Your task to perform on an android device: Empty the shopping cart on costco. Search for usb-c to usb-a on costco, select the first entry, add it to the cart, then select checkout. Image 0: 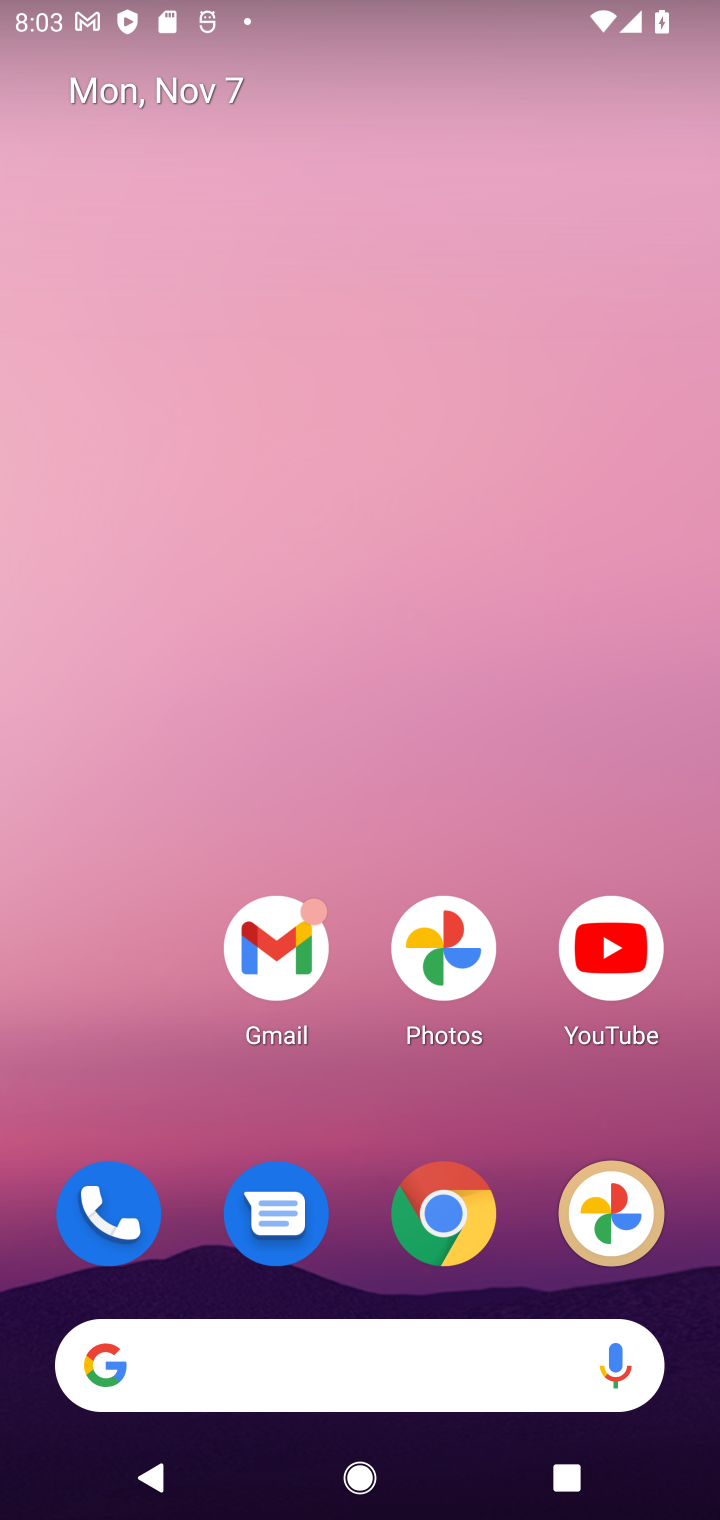
Step 0: click (439, 1218)
Your task to perform on an android device: Empty the shopping cart on costco. Search for usb-c to usb-a on costco, select the first entry, add it to the cart, then select checkout. Image 1: 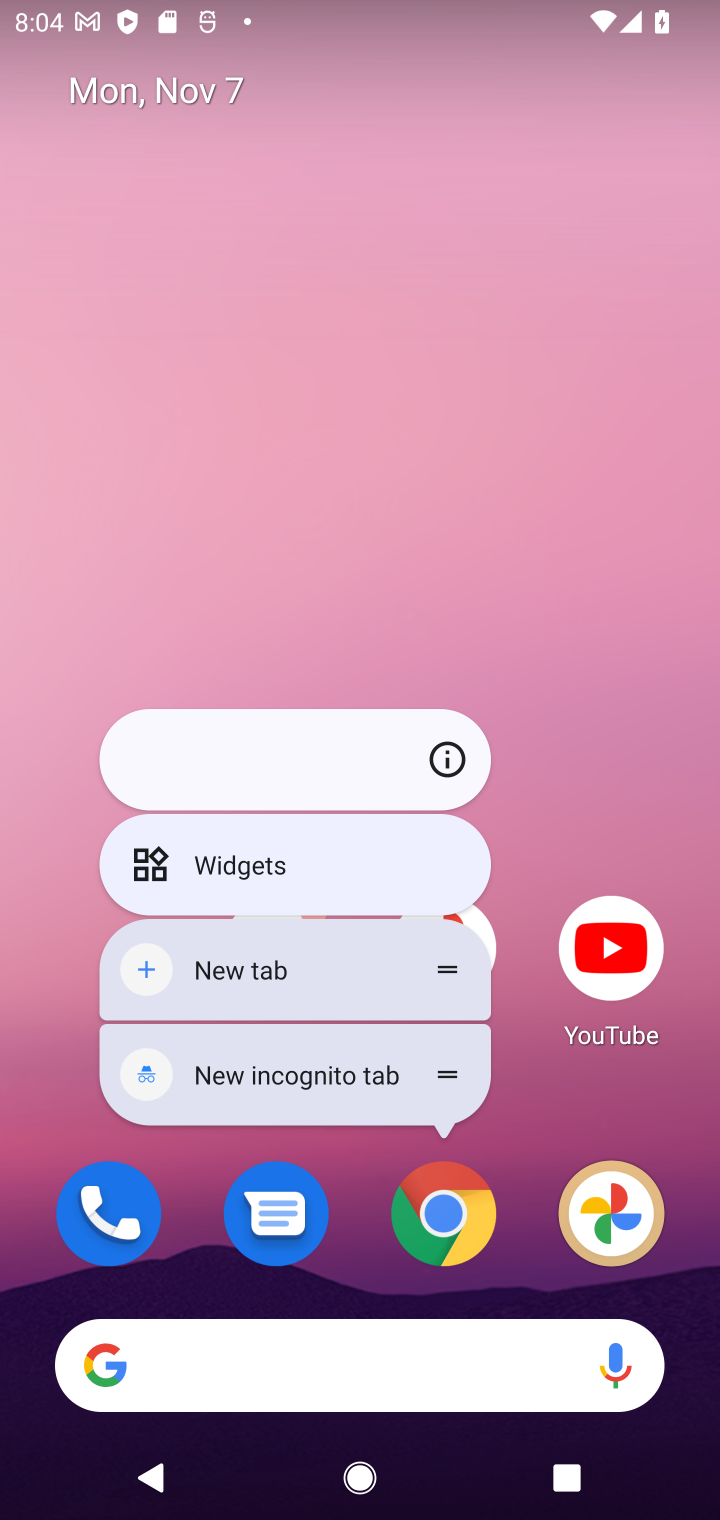
Step 1: click (460, 1218)
Your task to perform on an android device: Empty the shopping cart on costco. Search for usb-c to usb-a on costco, select the first entry, add it to the cart, then select checkout. Image 2: 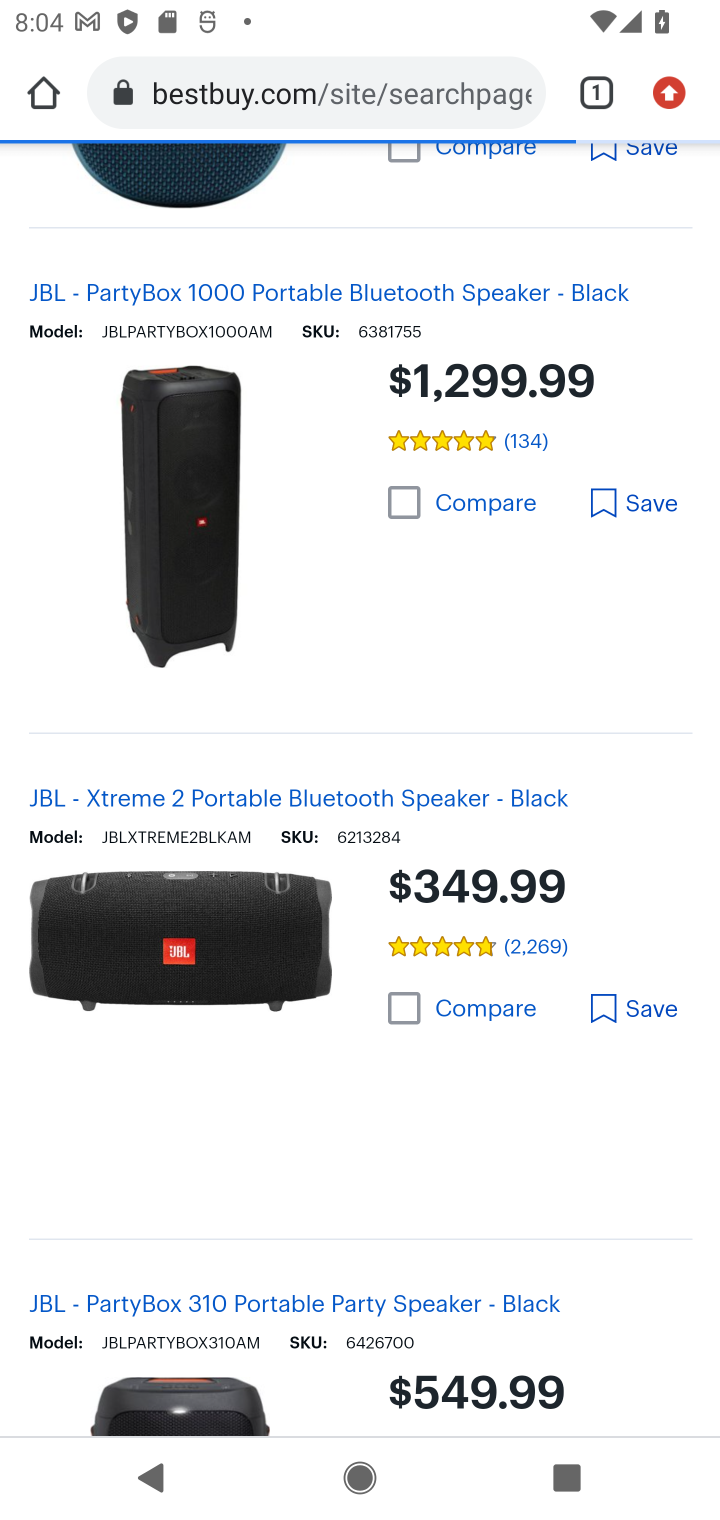
Step 2: click (279, 94)
Your task to perform on an android device: Empty the shopping cart on costco. Search for usb-c to usb-a on costco, select the first entry, add it to the cart, then select checkout. Image 3: 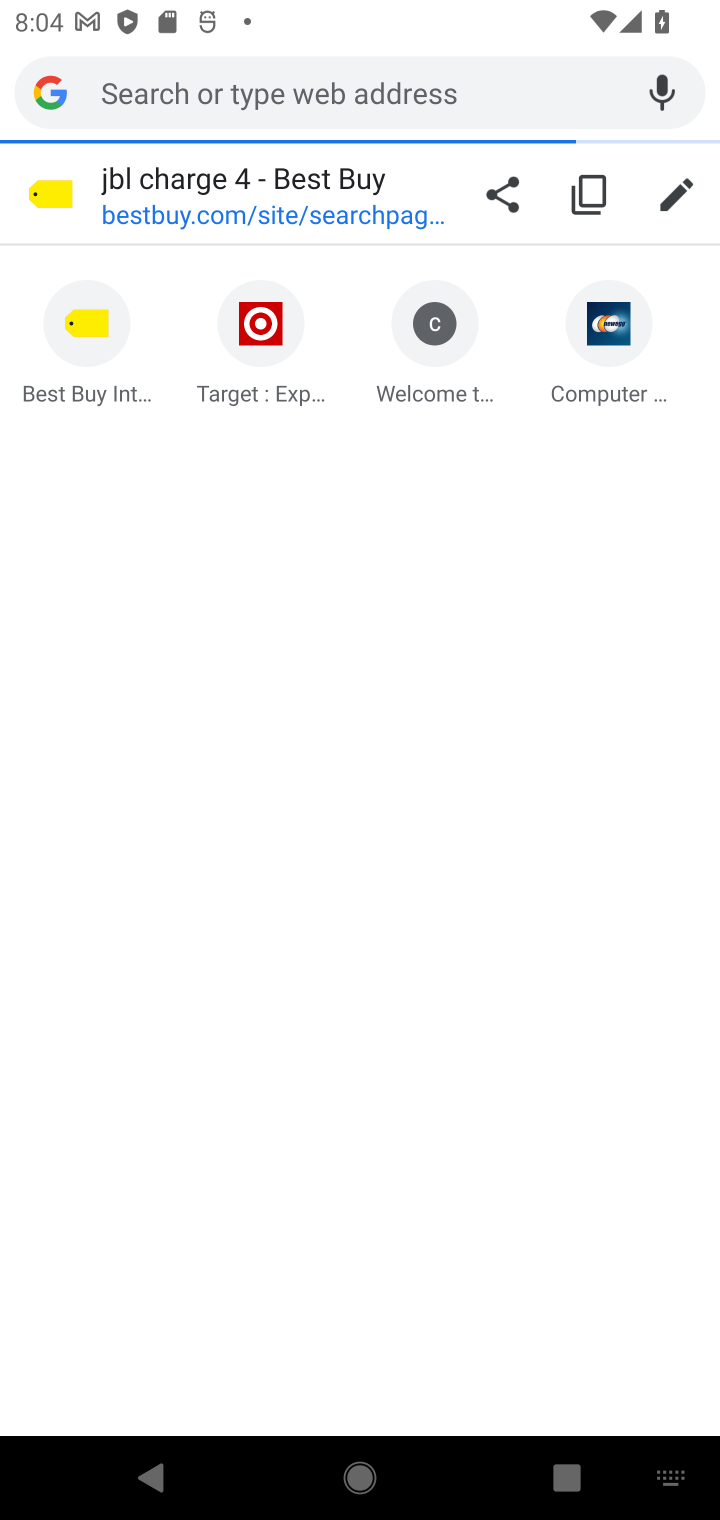
Step 3: type "costco.com"
Your task to perform on an android device: Empty the shopping cart on costco. Search for usb-c to usb-a on costco, select the first entry, add it to the cart, then select checkout. Image 4: 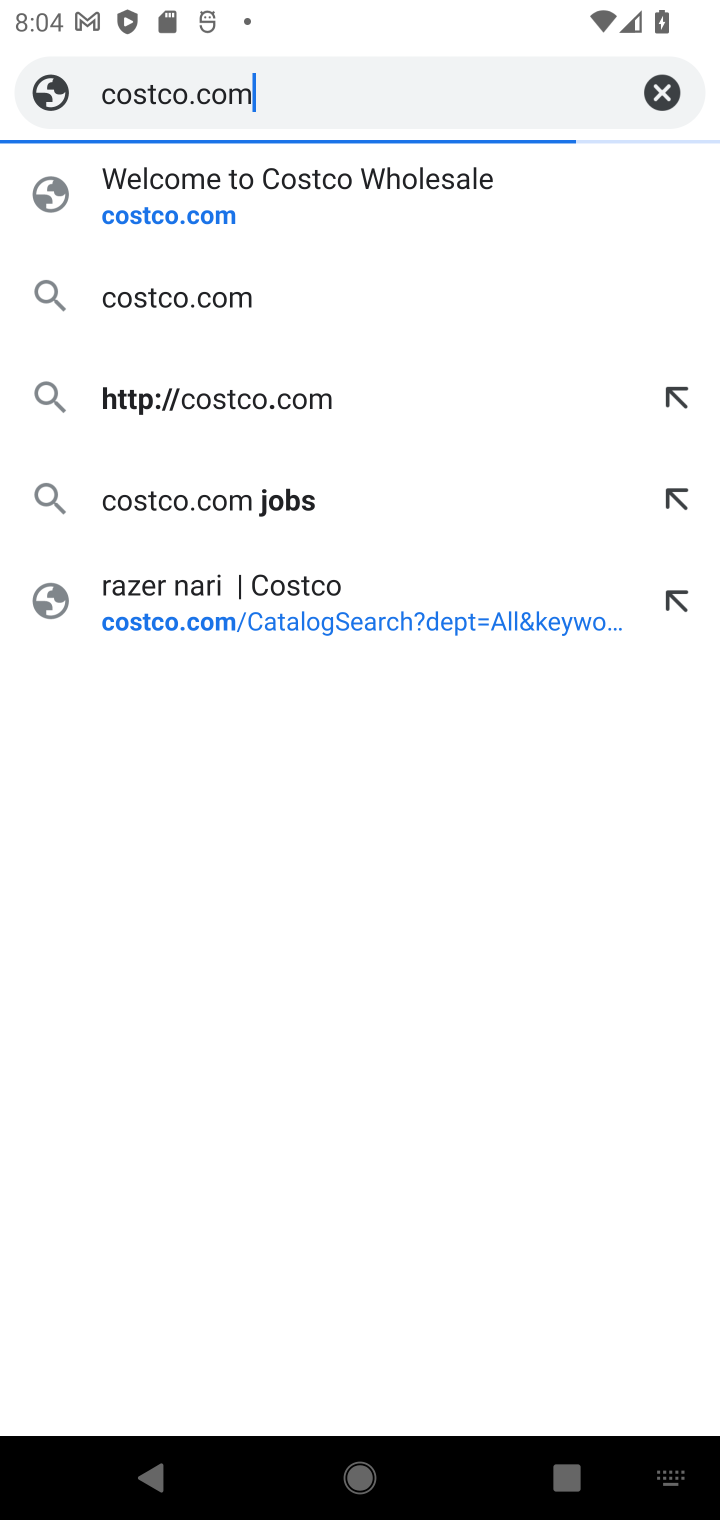
Step 4: click (198, 217)
Your task to perform on an android device: Empty the shopping cart on costco. Search for usb-c to usb-a on costco, select the first entry, add it to the cart, then select checkout. Image 5: 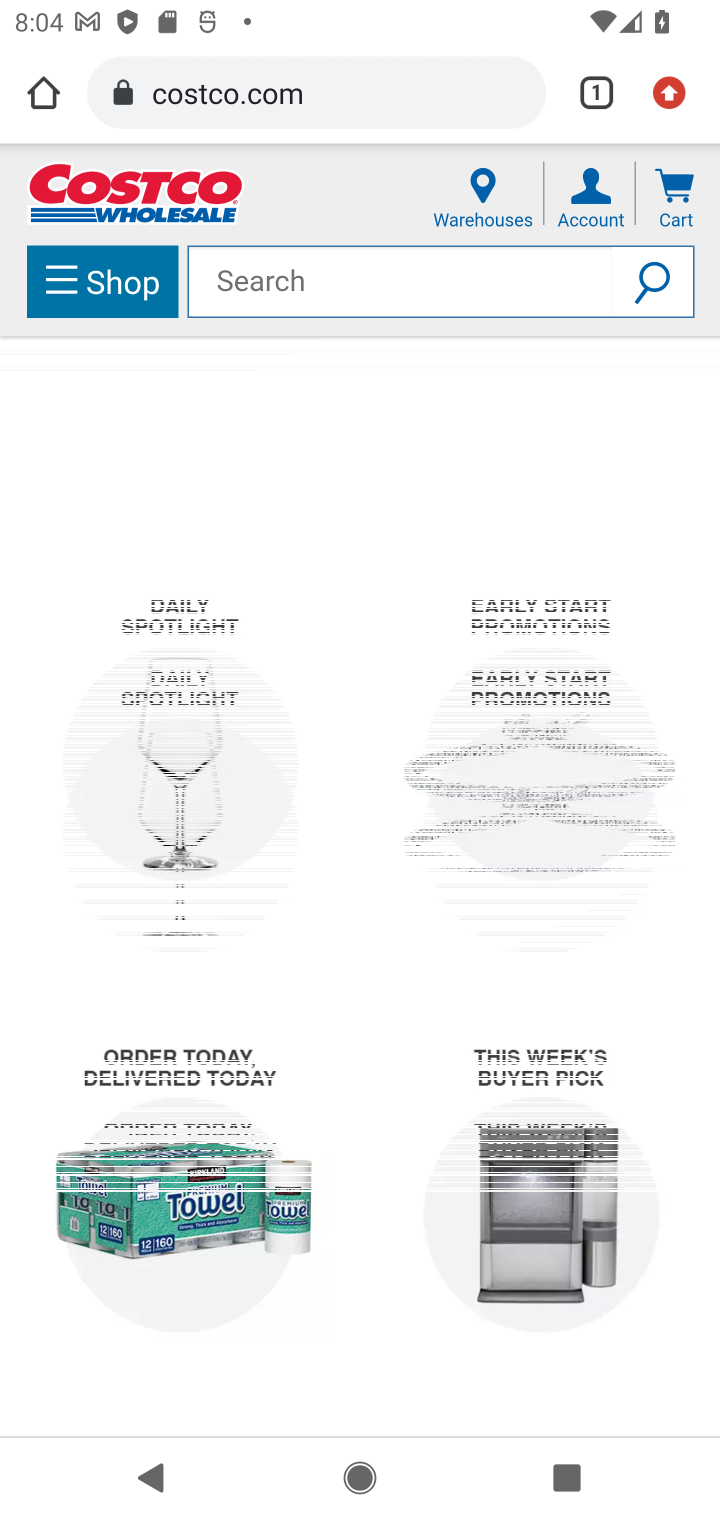
Step 5: click (671, 195)
Your task to perform on an android device: Empty the shopping cart on costco. Search for usb-c to usb-a on costco, select the first entry, add it to the cart, then select checkout. Image 6: 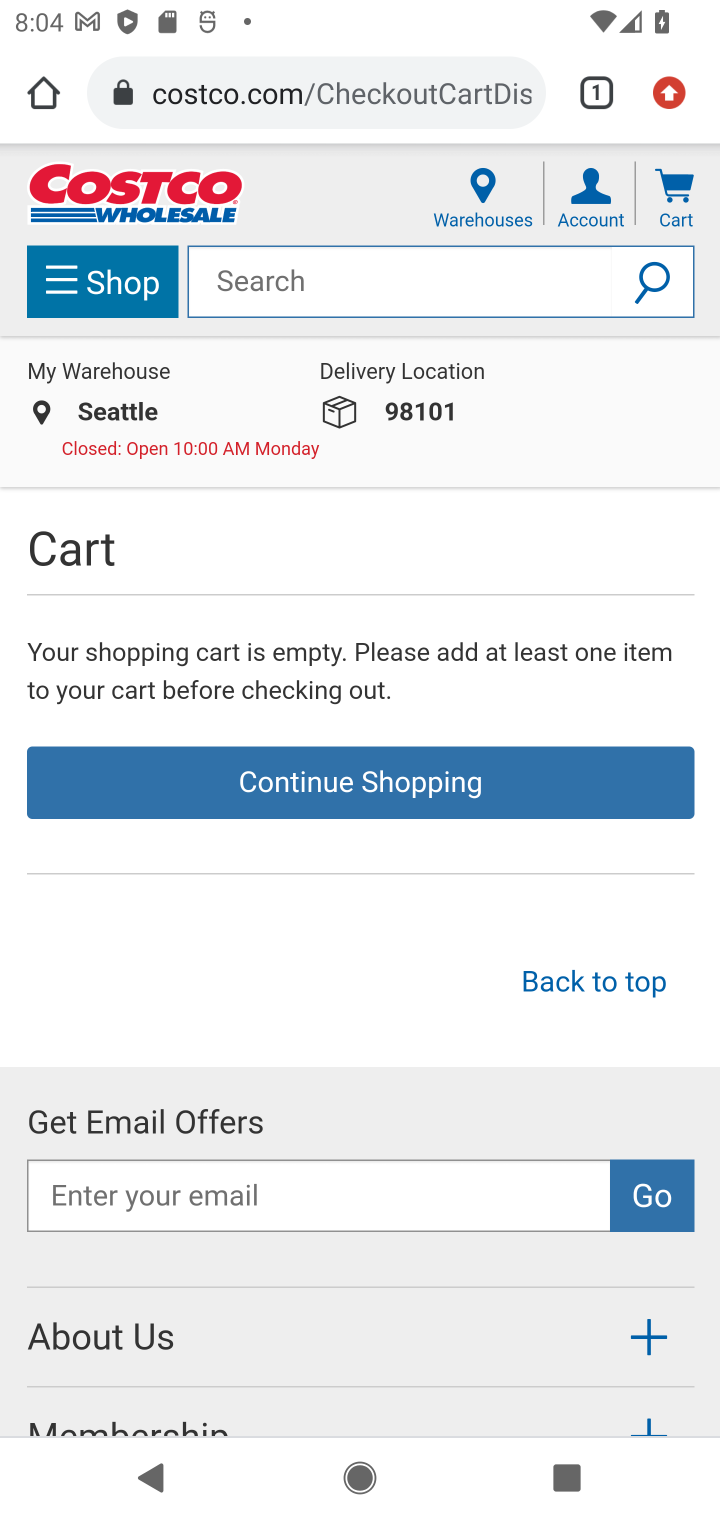
Step 6: click (324, 276)
Your task to perform on an android device: Empty the shopping cart on costco. Search for usb-c to usb-a on costco, select the first entry, add it to the cart, then select checkout. Image 7: 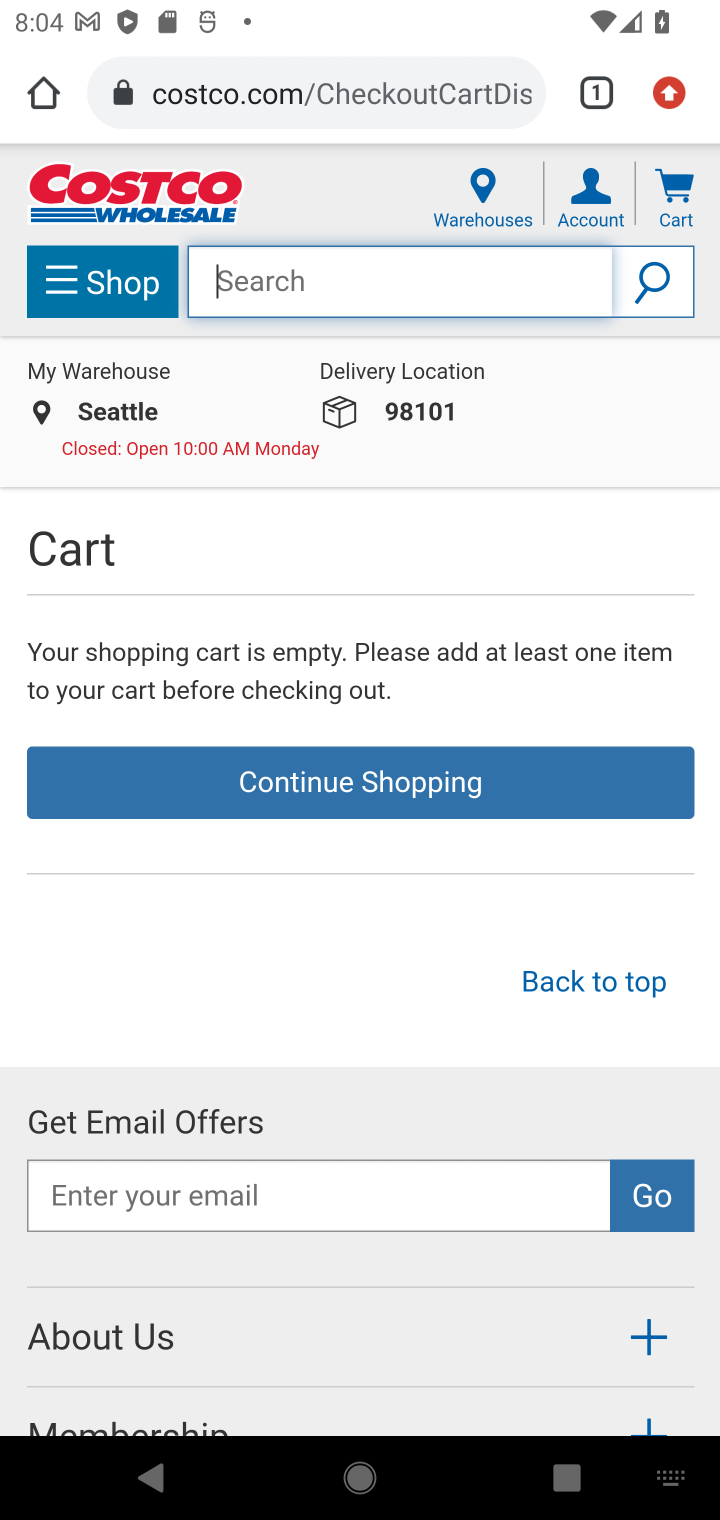
Step 7: type " usb-c to usb-a"
Your task to perform on an android device: Empty the shopping cart on costco. Search for usb-c to usb-a on costco, select the first entry, add it to the cart, then select checkout. Image 8: 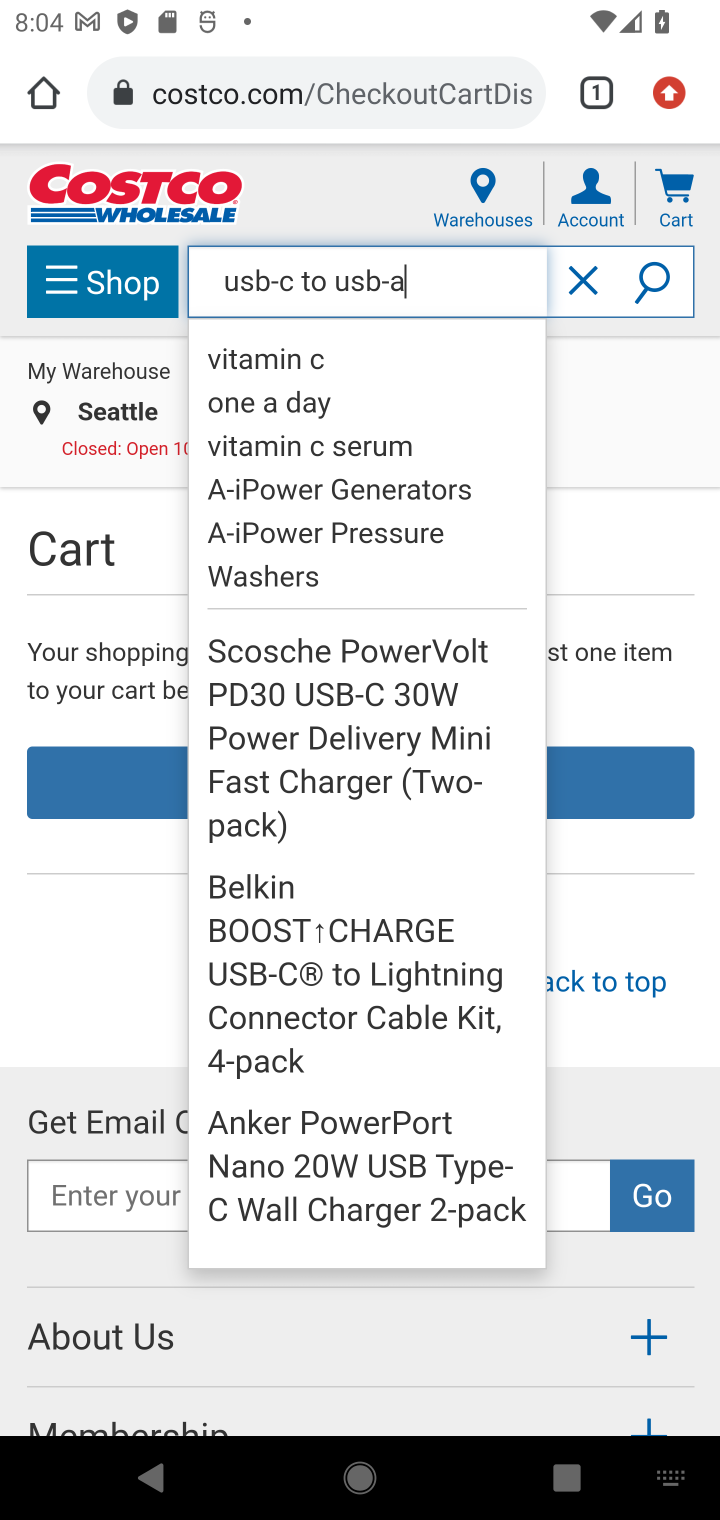
Step 8: click (643, 280)
Your task to perform on an android device: Empty the shopping cart on costco. Search for usb-c to usb-a on costco, select the first entry, add it to the cart, then select checkout. Image 9: 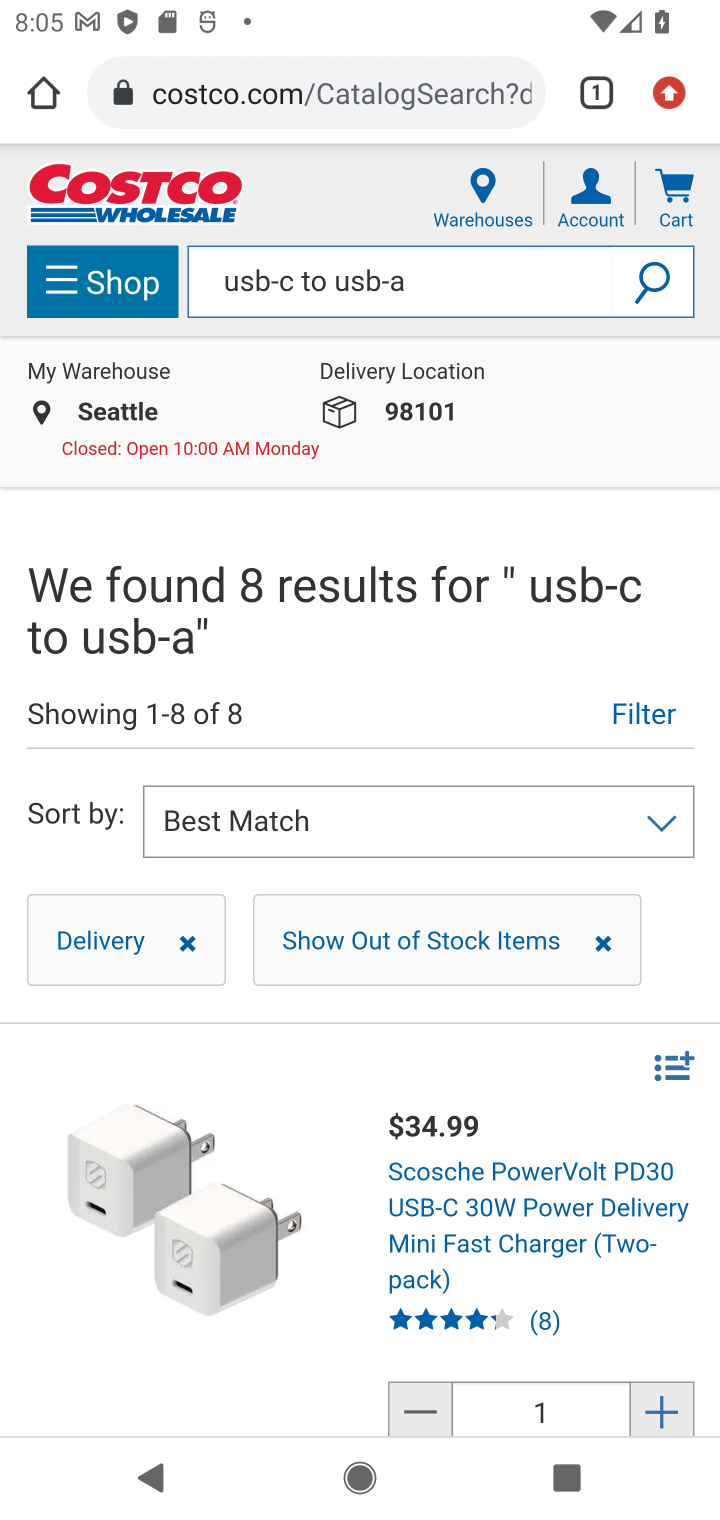
Step 9: task complete